Your task to perform on an android device: turn on location history Image 0: 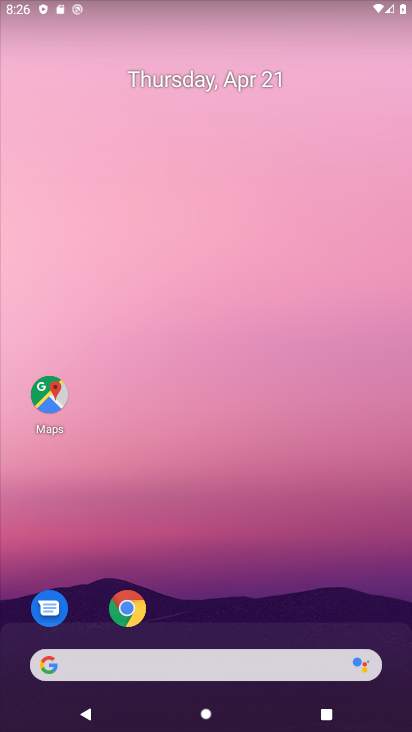
Step 0: drag from (287, 564) to (282, 92)
Your task to perform on an android device: turn on location history Image 1: 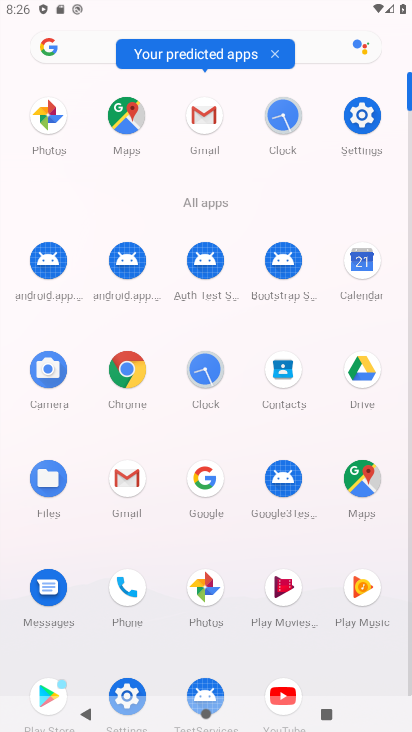
Step 1: click (364, 116)
Your task to perform on an android device: turn on location history Image 2: 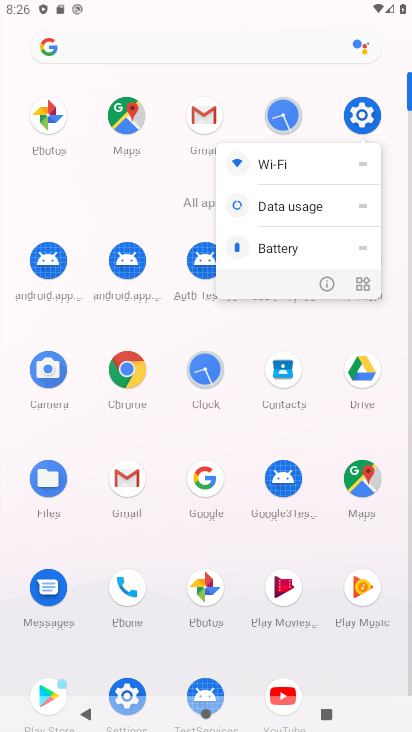
Step 2: click (364, 116)
Your task to perform on an android device: turn on location history Image 3: 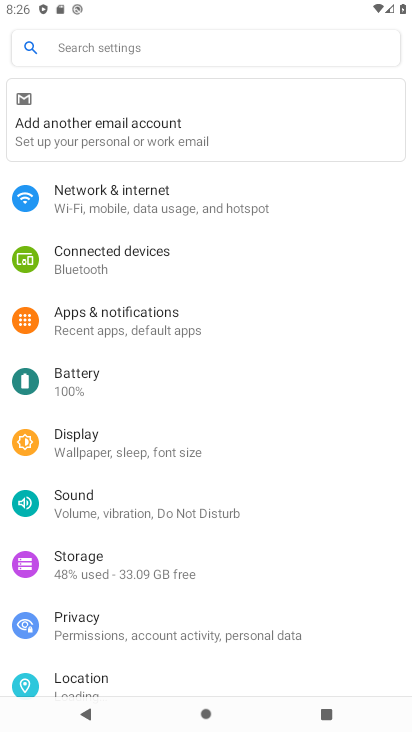
Step 3: click (191, 685)
Your task to perform on an android device: turn on location history Image 4: 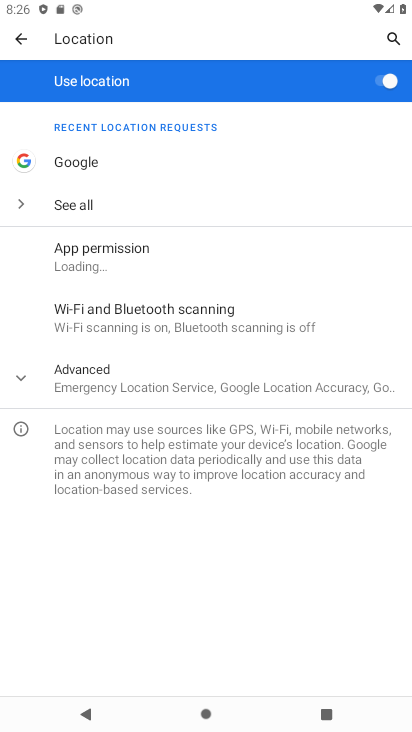
Step 4: click (16, 374)
Your task to perform on an android device: turn on location history Image 5: 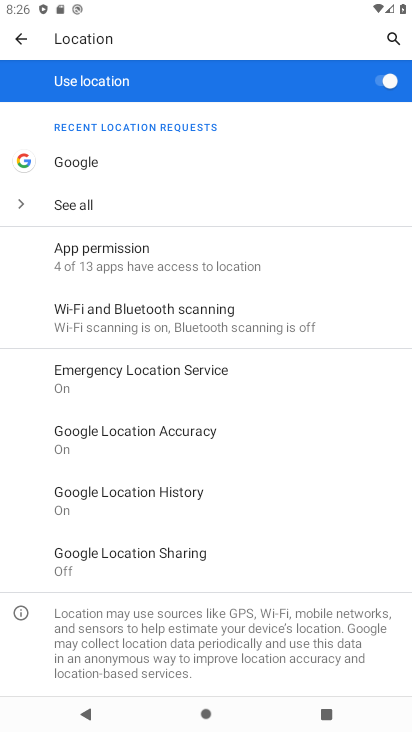
Step 5: task complete